Your task to perform on an android device: Toggle the flashlight Image 0: 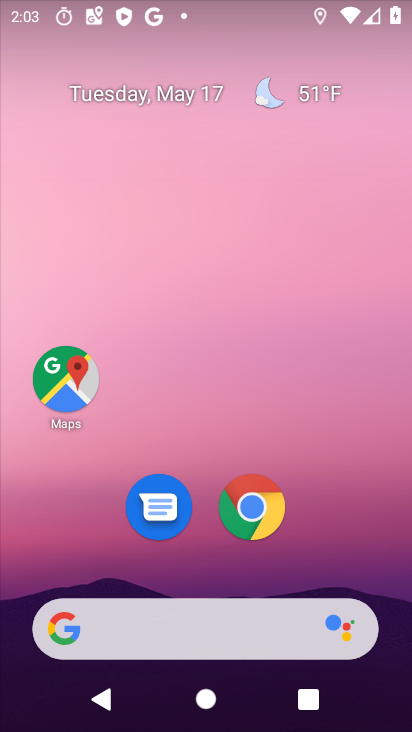
Step 0: drag from (192, 476) to (188, 87)
Your task to perform on an android device: Toggle the flashlight Image 1: 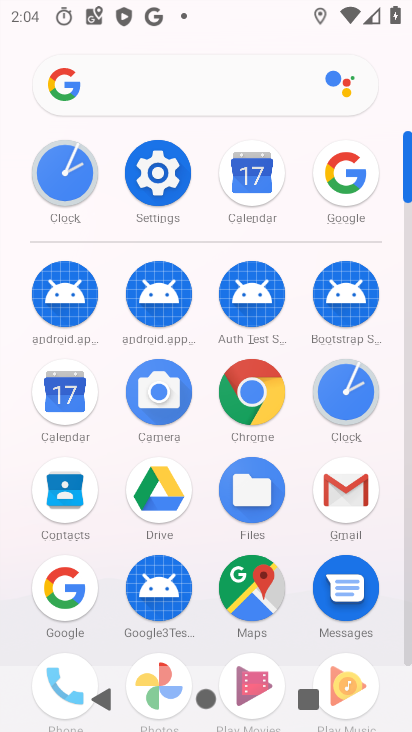
Step 1: click (170, 183)
Your task to perform on an android device: Toggle the flashlight Image 2: 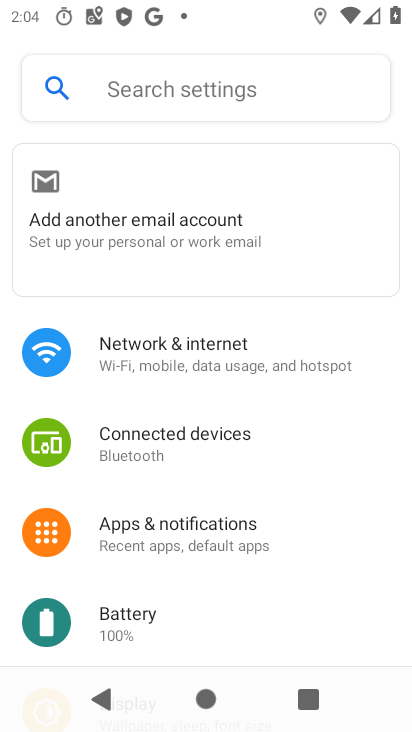
Step 2: click (192, 98)
Your task to perform on an android device: Toggle the flashlight Image 3: 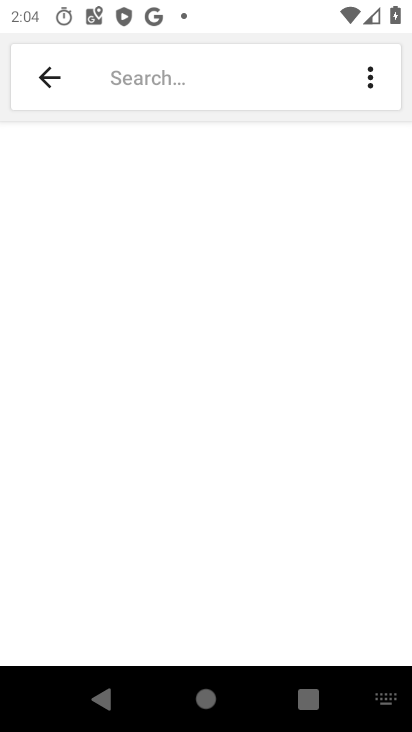
Step 3: type "flash"
Your task to perform on an android device: Toggle the flashlight Image 4: 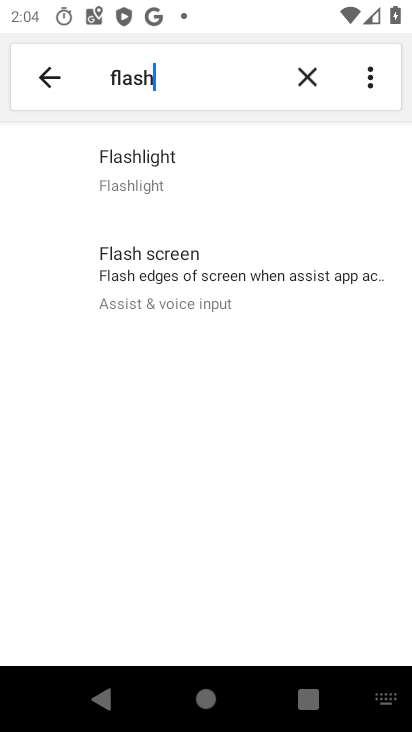
Step 4: task complete